Your task to perform on an android device: all mails in gmail Image 0: 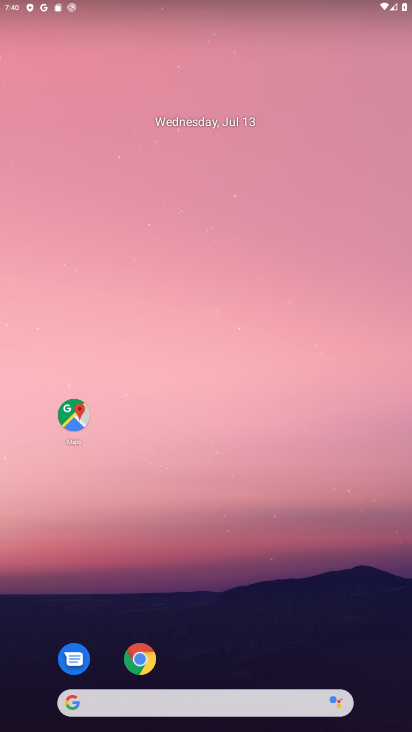
Step 0: drag from (208, 649) to (235, 104)
Your task to perform on an android device: all mails in gmail Image 1: 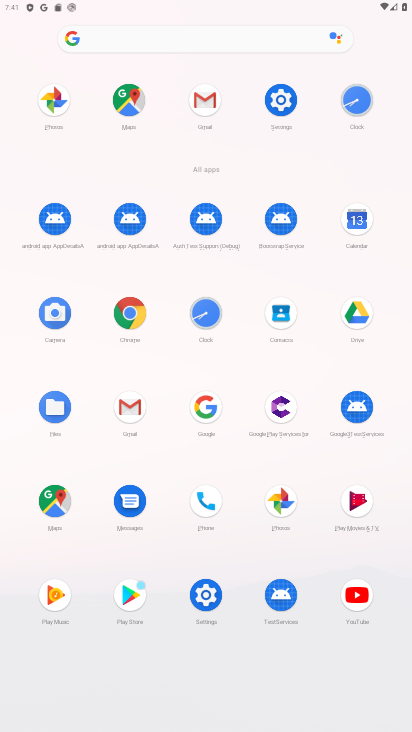
Step 1: click (216, 107)
Your task to perform on an android device: all mails in gmail Image 2: 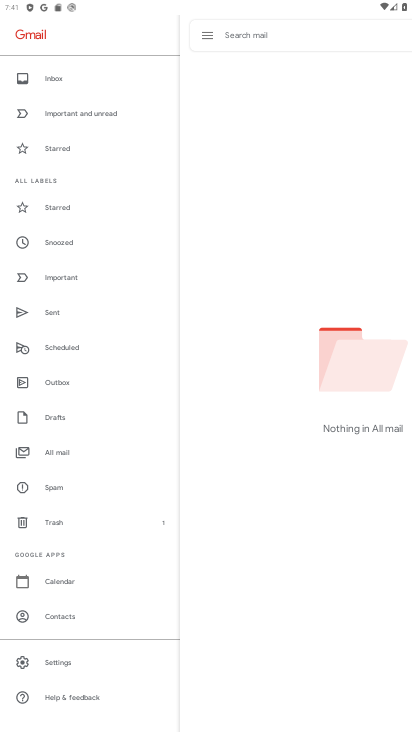
Step 2: click (61, 449)
Your task to perform on an android device: all mails in gmail Image 3: 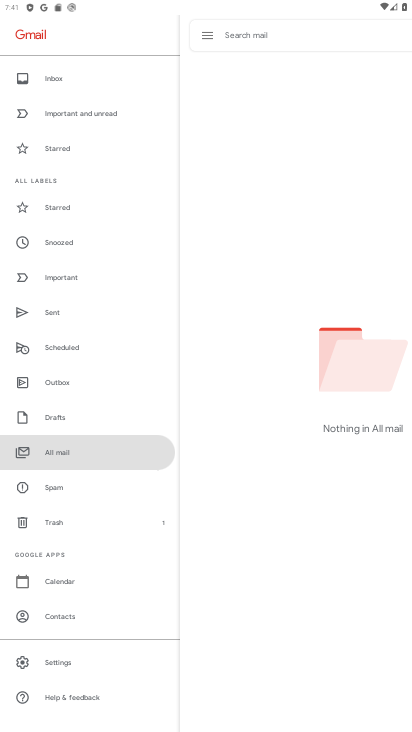
Step 3: task complete